Your task to perform on an android device: see tabs open on other devices in the chrome app Image 0: 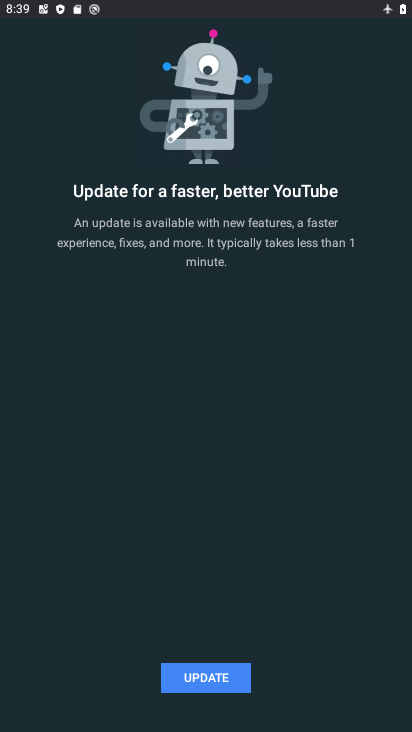
Step 0: press home button
Your task to perform on an android device: see tabs open on other devices in the chrome app Image 1: 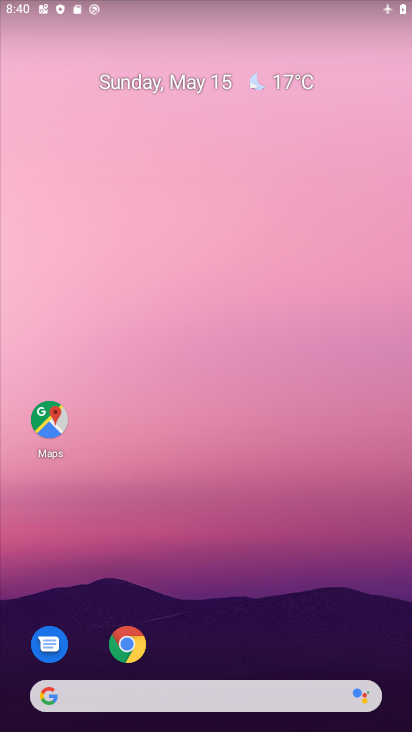
Step 1: drag from (219, 715) to (258, 244)
Your task to perform on an android device: see tabs open on other devices in the chrome app Image 2: 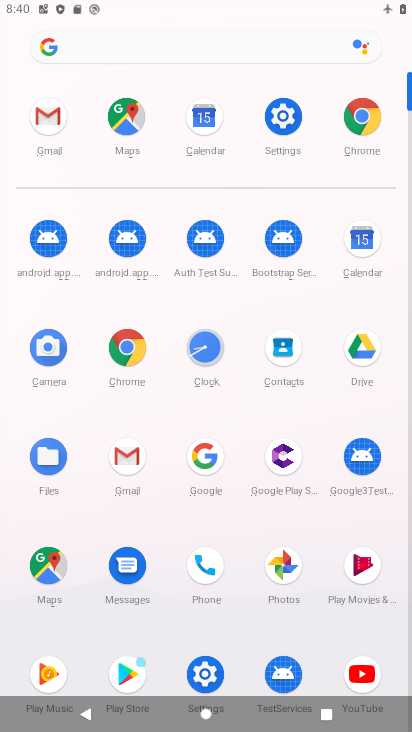
Step 2: click (364, 121)
Your task to perform on an android device: see tabs open on other devices in the chrome app Image 3: 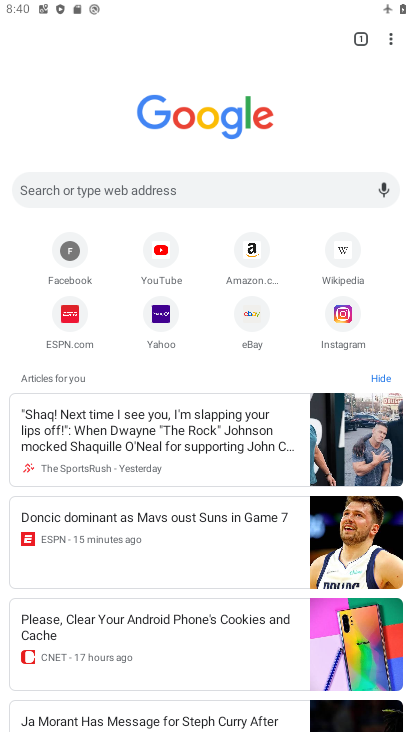
Step 3: click (357, 43)
Your task to perform on an android device: see tabs open on other devices in the chrome app Image 4: 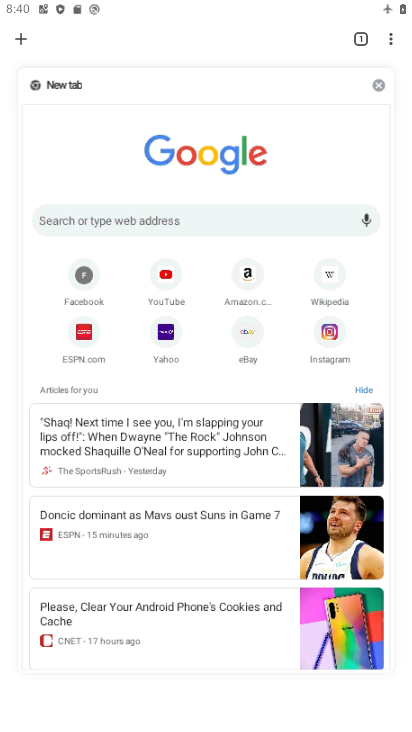
Step 4: click (28, 44)
Your task to perform on an android device: see tabs open on other devices in the chrome app Image 5: 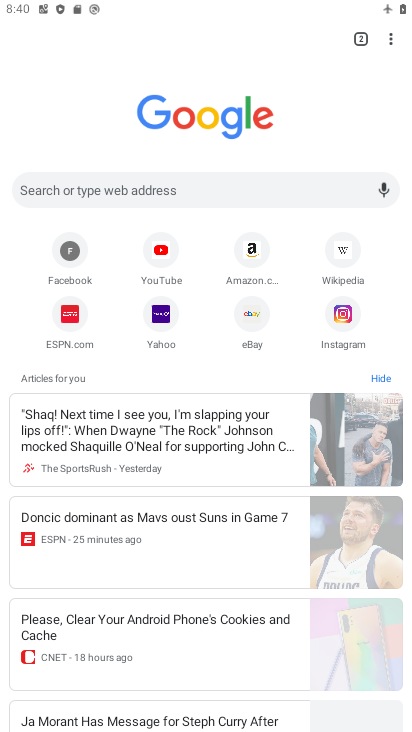
Step 5: task complete